Your task to perform on an android device: Open privacy settings Image 0: 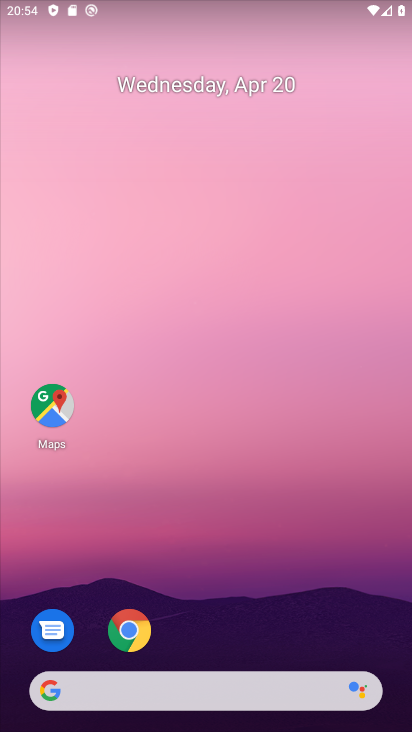
Step 0: drag from (234, 634) to (250, 137)
Your task to perform on an android device: Open privacy settings Image 1: 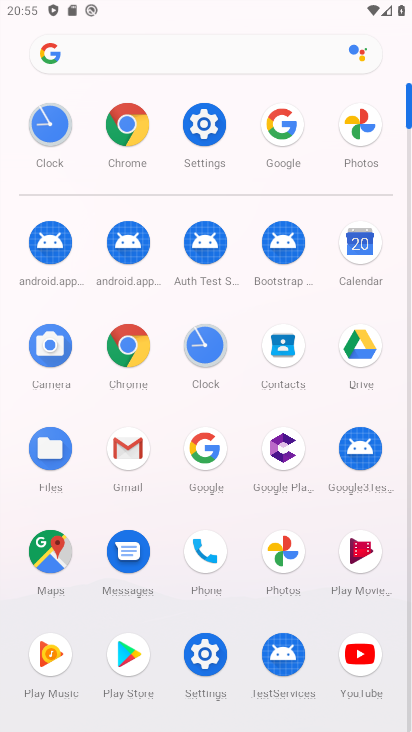
Step 1: click (204, 119)
Your task to perform on an android device: Open privacy settings Image 2: 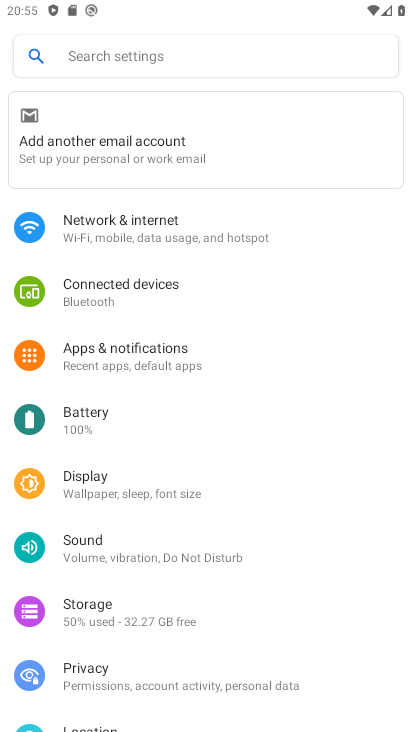
Step 2: click (116, 671)
Your task to perform on an android device: Open privacy settings Image 3: 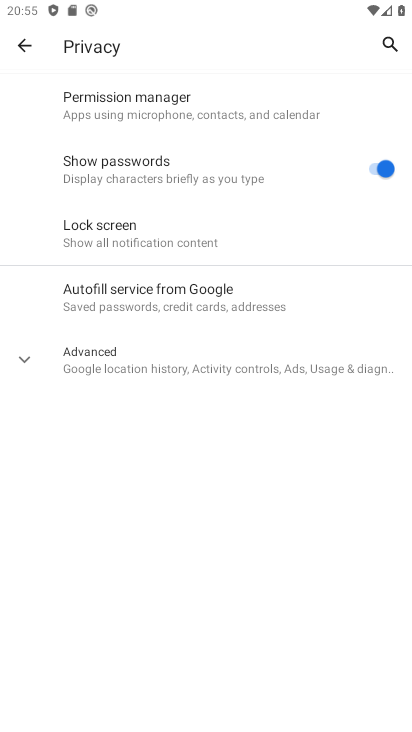
Step 3: task complete